Your task to perform on an android device: toggle wifi Image 0: 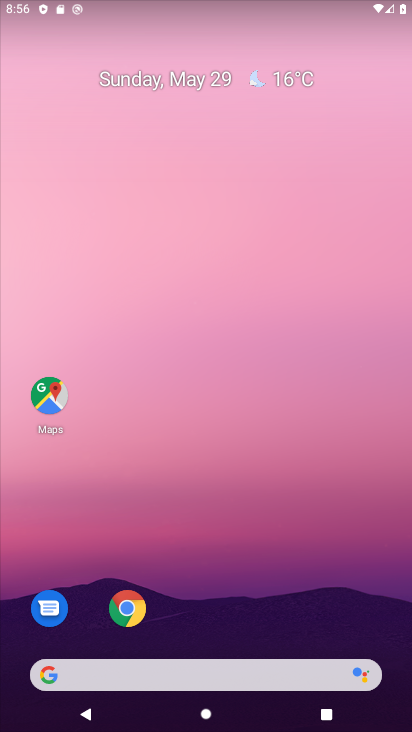
Step 0: drag from (182, 602) to (313, 40)
Your task to perform on an android device: toggle wifi Image 1: 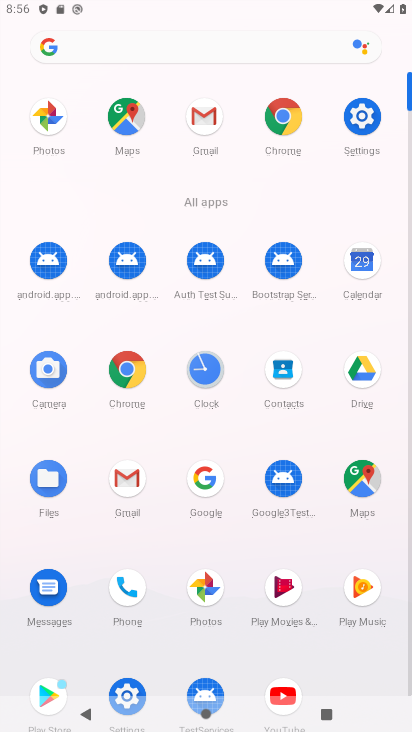
Step 1: click (360, 118)
Your task to perform on an android device: toggle wifi Image 2: 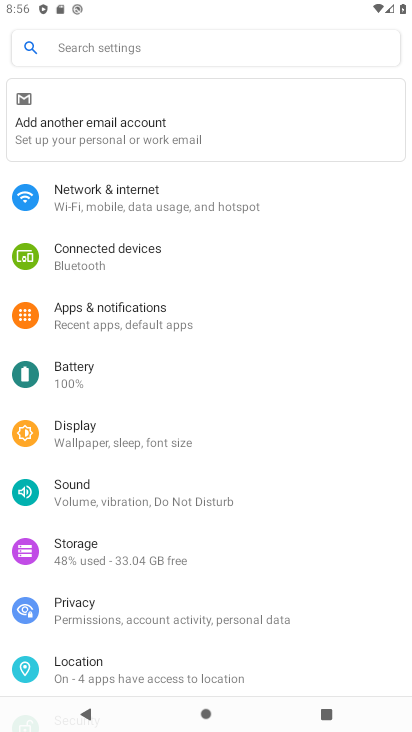
Step 2: click (81, 179)
Your task to perform on an android device: toggle wifi Image 3: 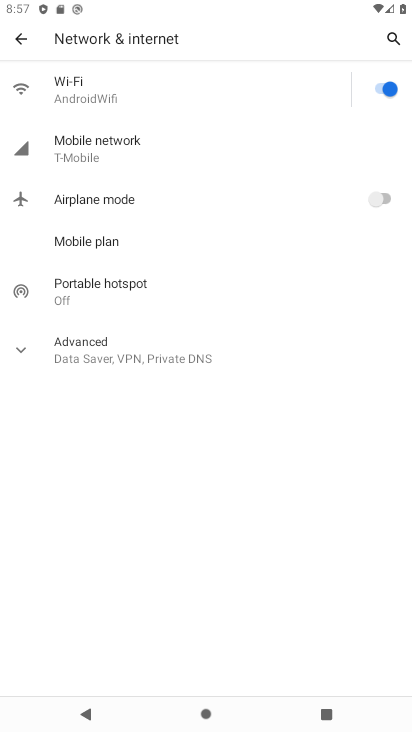
Step 3: click (383, 93)
Your task to perform on an android device: toggle wifi Image 4: 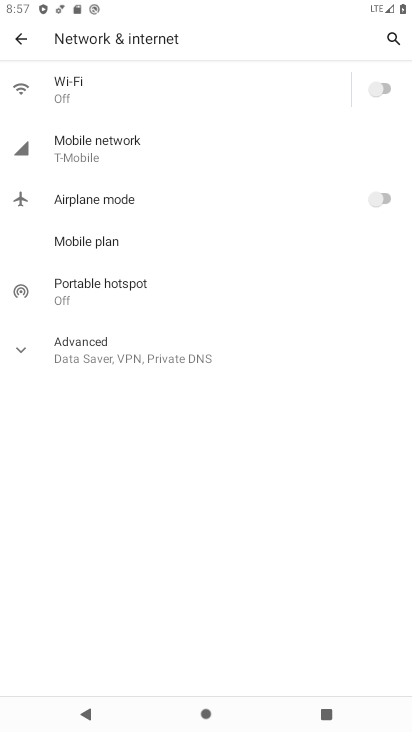
Step 4: task complete